Your task to perform on an android device: Go to accessibility settings Image 0: 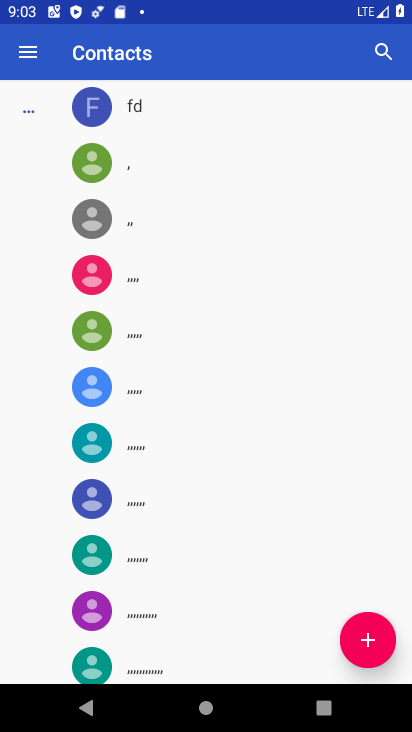
Step 0: press home button
Your task to perform on an android device: Go to accessibility settings Image 1: 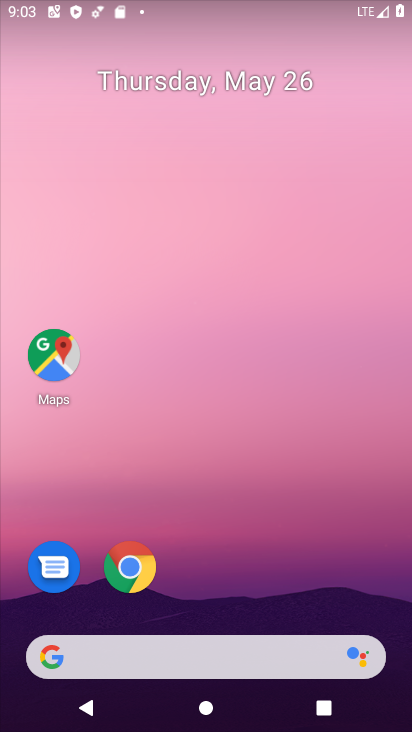
Step 1: drag from (229, 520) to (159, 22)
Your task to perform on an android device: Go to accessibility settings Image 2: 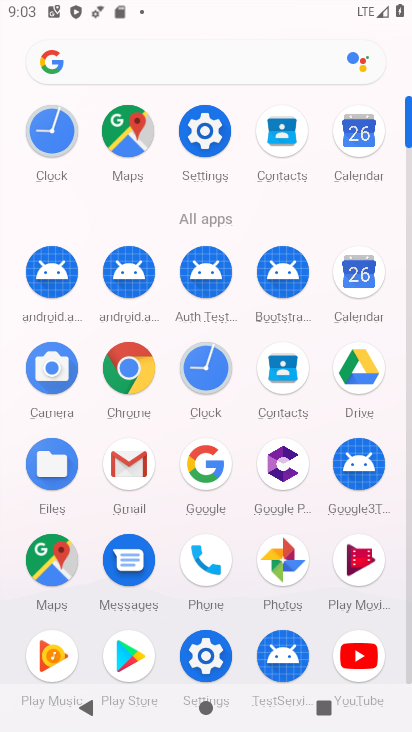
Step 2: click (218, 644)
Your task to perform on an android device: Go to accessibility settings Image 3: 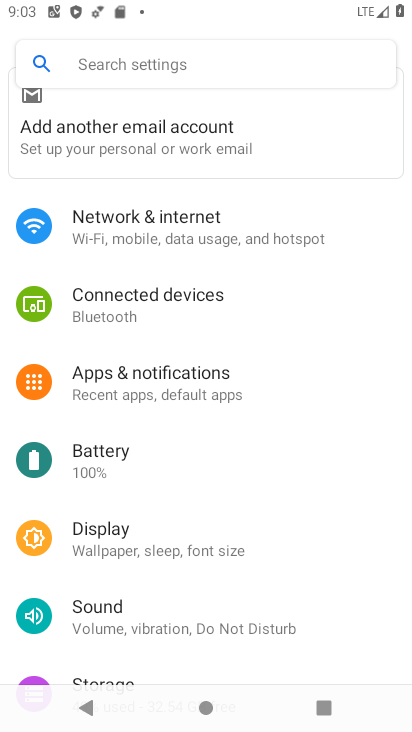
Step 3: drag from (200, 624) to (214, 85)
Your task to perform on an android device: Go to accessibility settings Image 4: 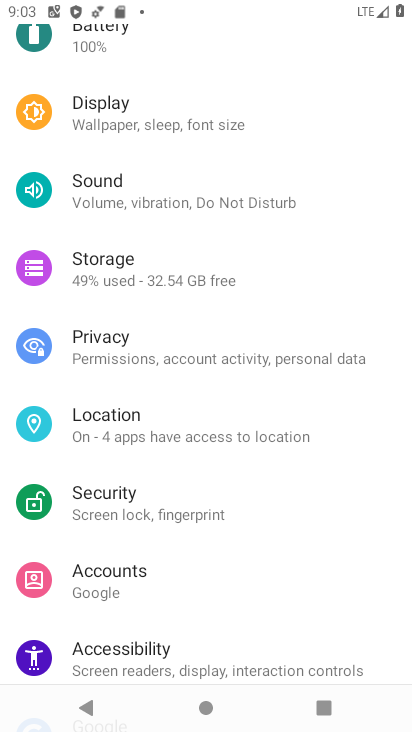
Step 4: click (174, 662)
Your task to perform on an android device: Go to accessibility settings Image 5: 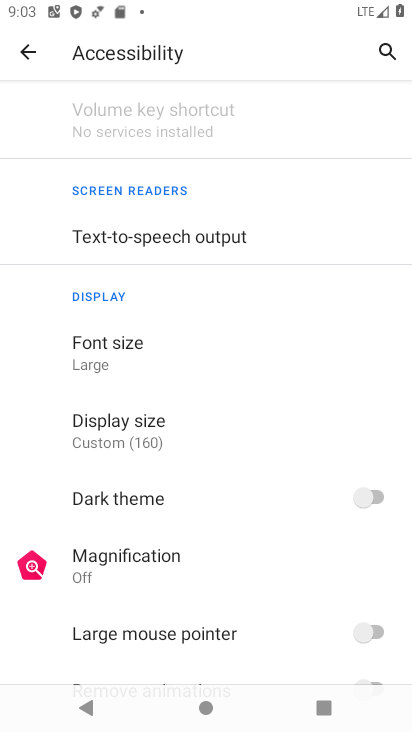
Step 5: task complete